Your task to perform on an android device: Check the news Image 0: 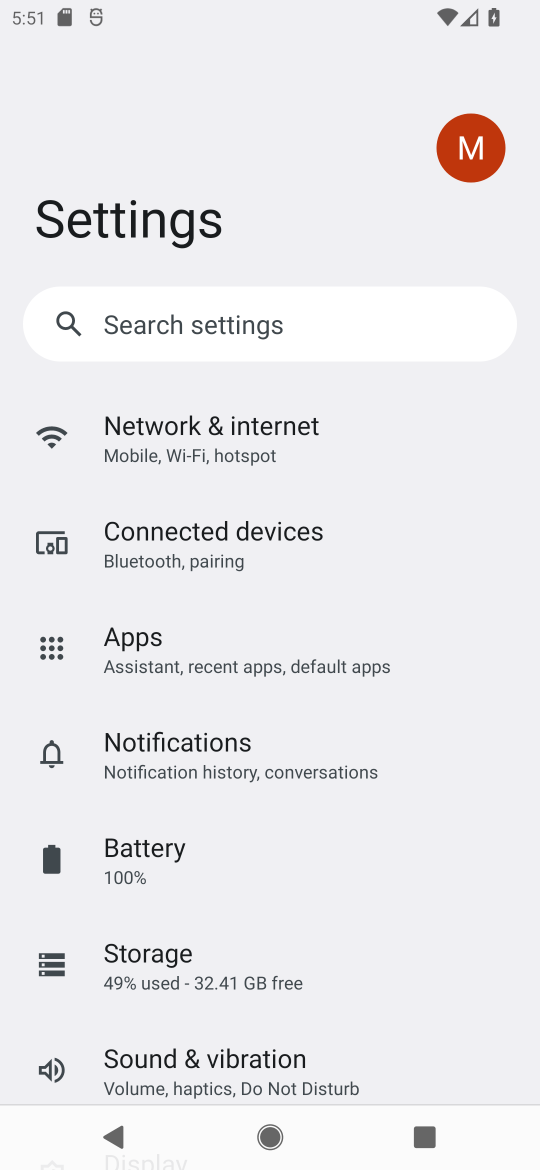
Step 0: press home button
Your task to perform on an android device: Check the news Image 1: 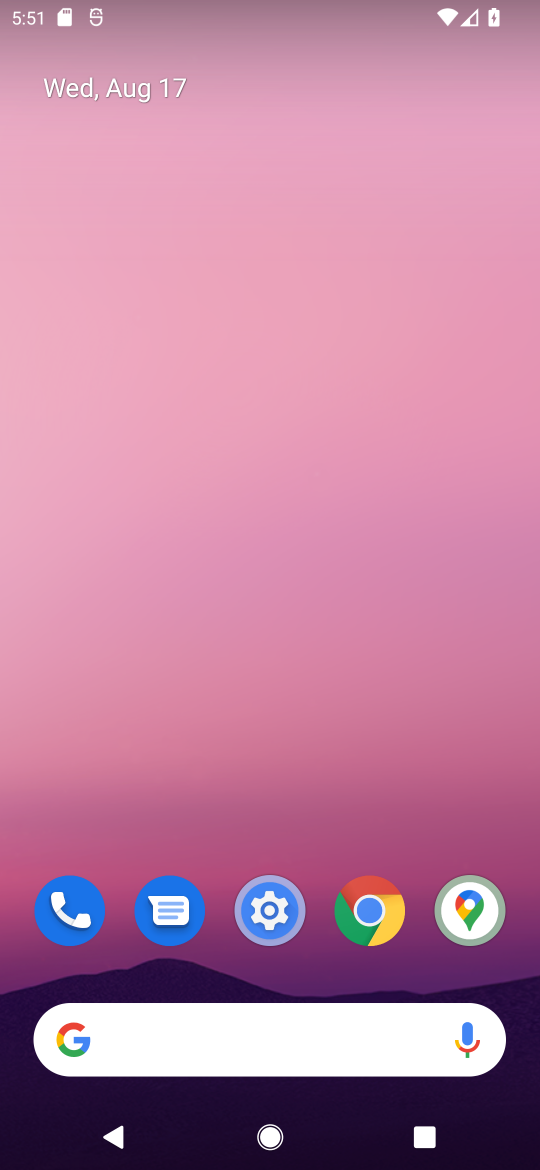
Step 1: task complete